Your task to perform on an android device: Open the Play Movies app and select the watchlist tab. Image 0: 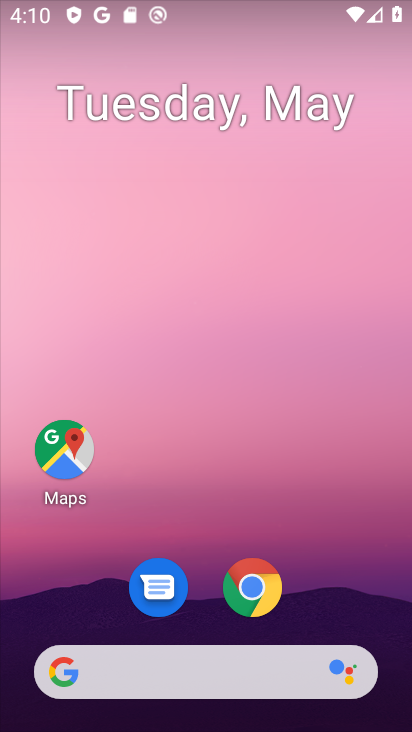
Step 0: drag from (389, 624) to (353, 123)
Your task to perform on an android device: Open the Play Movies app and select the watchlist tab. Image 1: 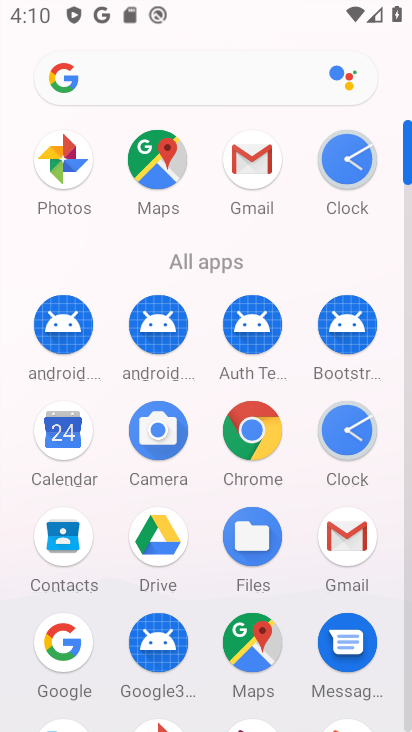
Step 1: drag from (386, 616) to (394, 310)
Your task to perform on an android device: Open the Play Movies app and select the watchlist tab. Image 2: 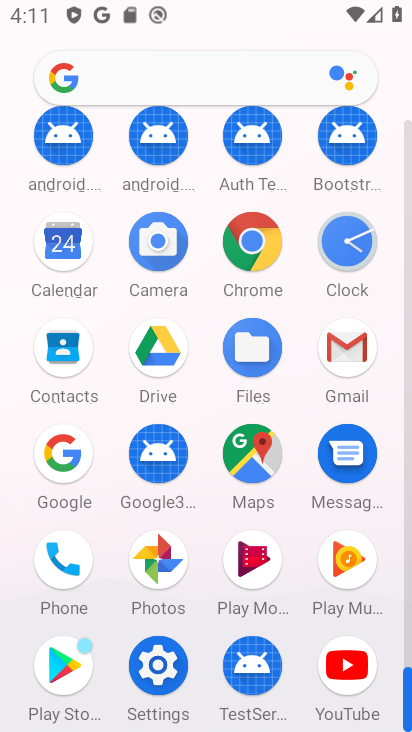
Step 2: click (251, 562)
Your task to perform on an android device: Open the Play Movies app and select the watchlist tab. Image 3: 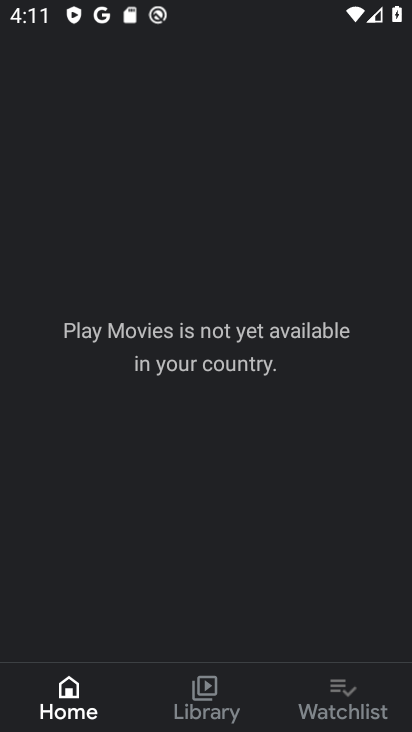
Step 3: click (336, 702)
Your task to perform on an android device: Open the Play Movies app and select the watchlist tab. Image 4: 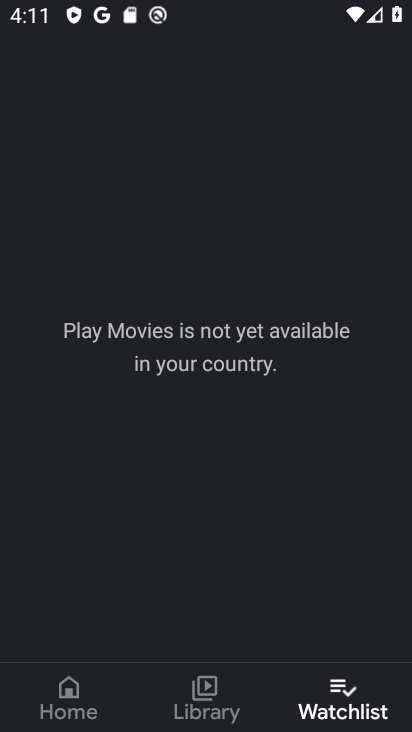
Step 4: task complete